Your task to perform on an android device: check data usage Image 0: 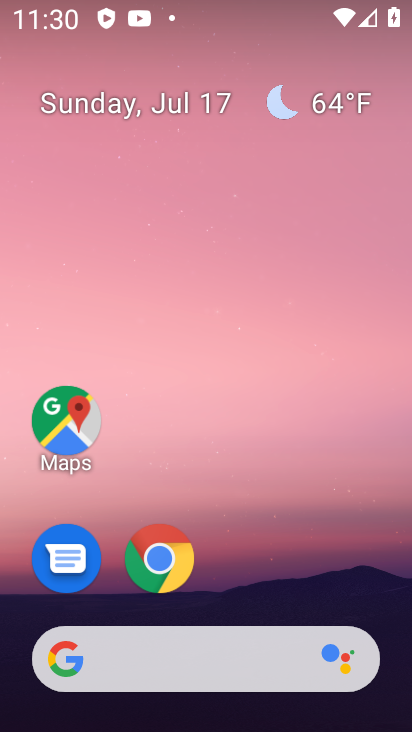
Step 0: drag from (369, 589) to (357, 151)
Your task to perform on an android device: check data usage Image 1: 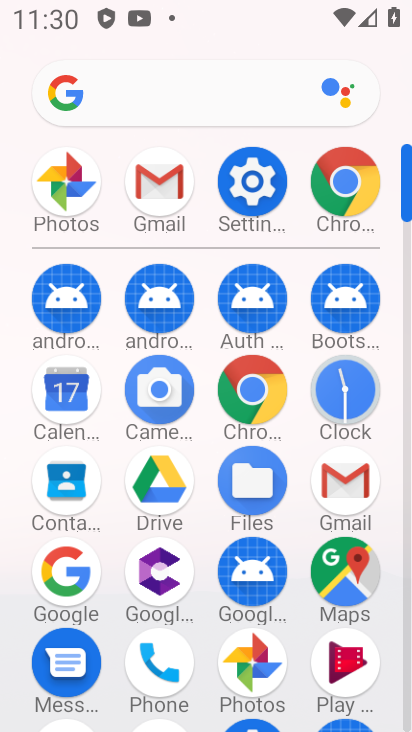
Step 1: click (248, 186)
Your task to perform on an android device: check data usage Image 2: 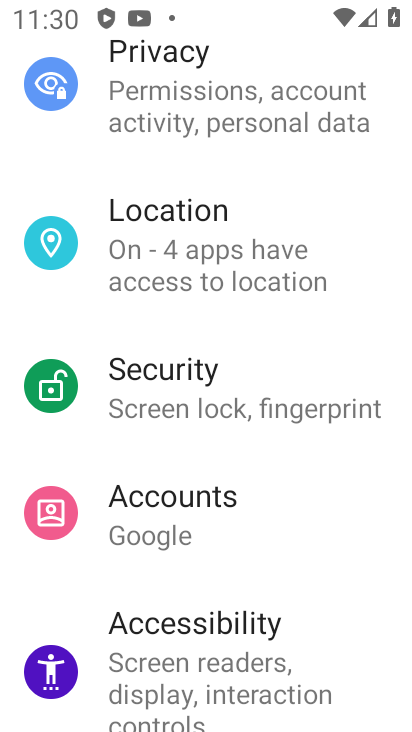
Step 2: drag from (367, 201) to (368, 307)
Your task to perform on an android device: check data usage Image 3: 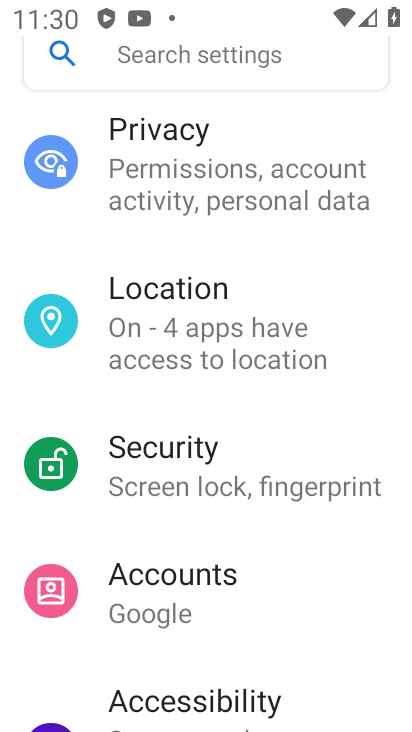
Step 3: drag from (368, 259) to (368, 344)
Your task to perform on an android device: check data usage Image 4: 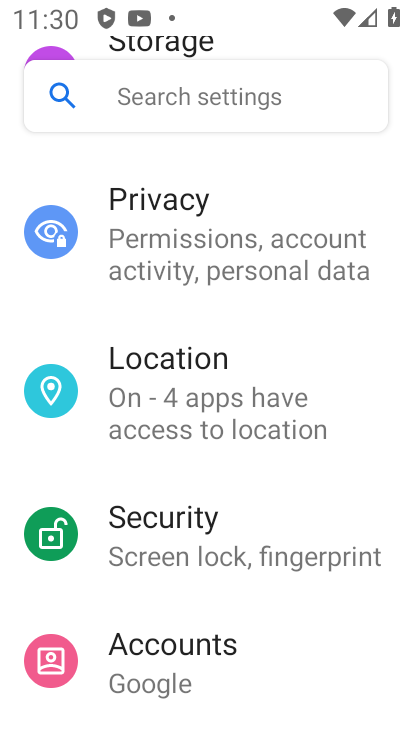
Step 4: drag from (369, 303) to (369, 419)
Your task to perform on an android device: check data usage Image 5: 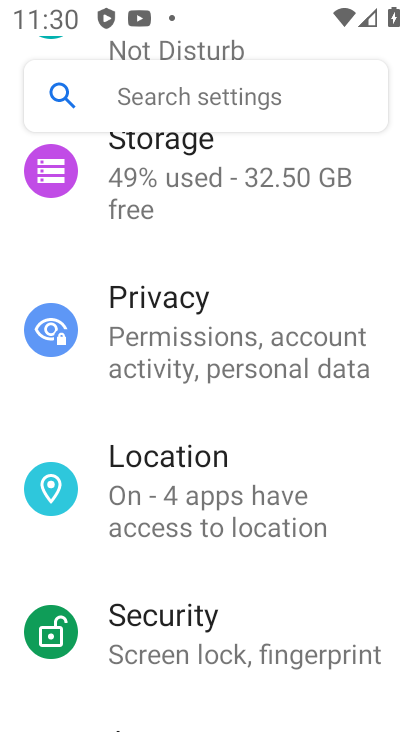
Step 5: drag from (369, 244) to (366, 375)
Your task to perform on an android device: check data usage Image 6: 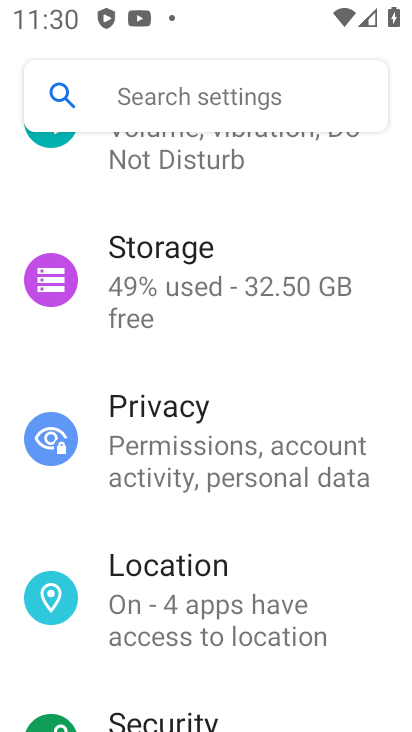
Step 6: drag from (365, 210) to (364, 324)
Your task to perform on an android device: check data usage Image 7: 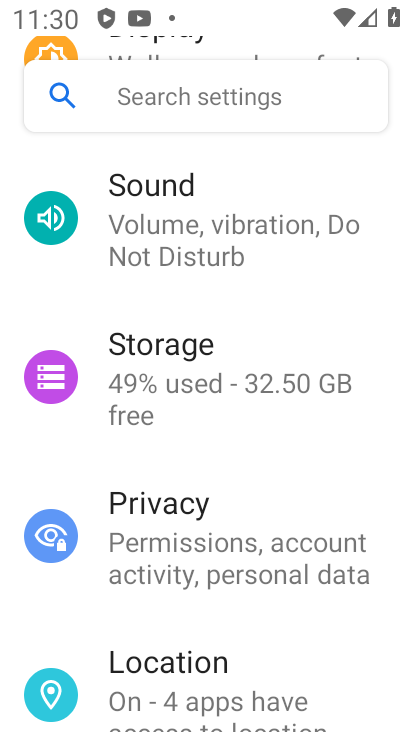
Step 7: drag from (364, 205) to (363, 330)
Your task to perform on an android device: check data usage Image 8: 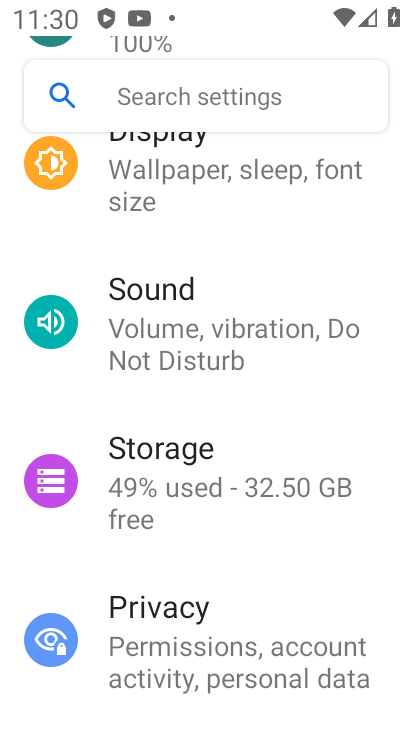
Step 8: drag from (364, 227) to (362, 356)
Your task to perform on an android device: check data usage Image 9: 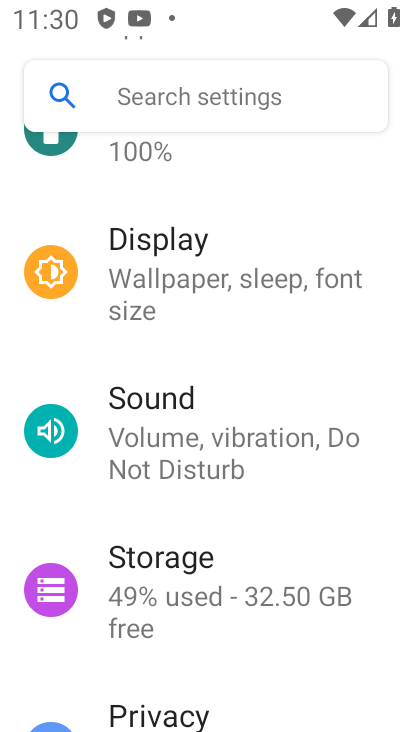
Step 9: drag from (369, 199) to (368, 330)
Your task to perform on an android device: check data usage Image 10: 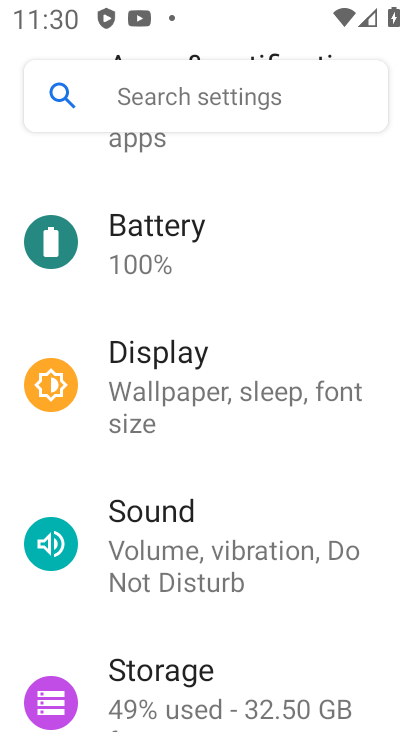
Step 10: drag from (374, 205) to (372, 324)
Your task to perform on an android device: check data usage Image 11: 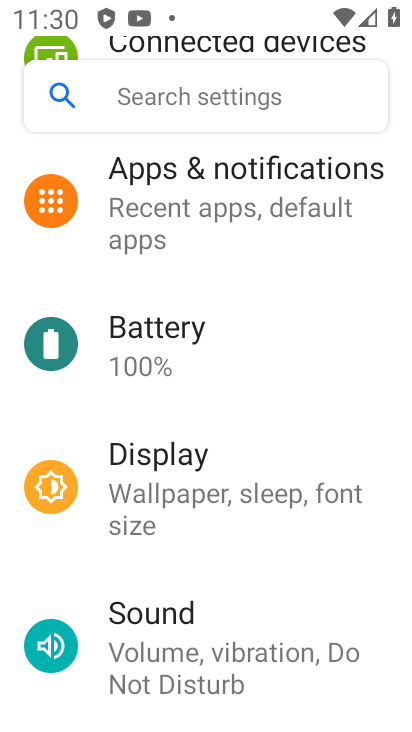
Step 11: drag from (369, 204) to (364, 430)
Your task to perform on an android device: check data usage Image 12: 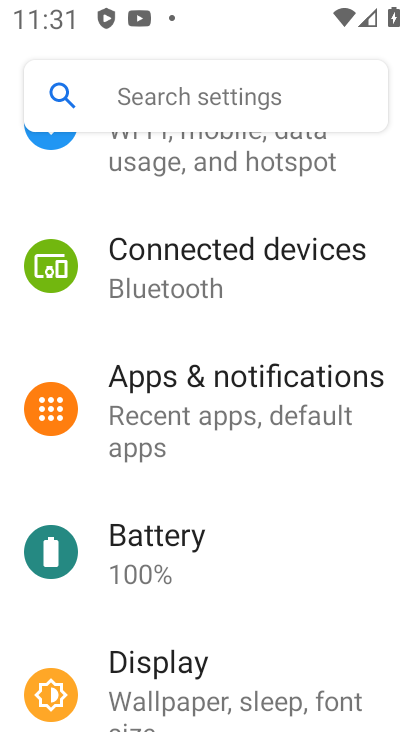
Step 12: drag from (353, 170) to (348, 386)
Your task to perform on an android device: check data usage Image 13: 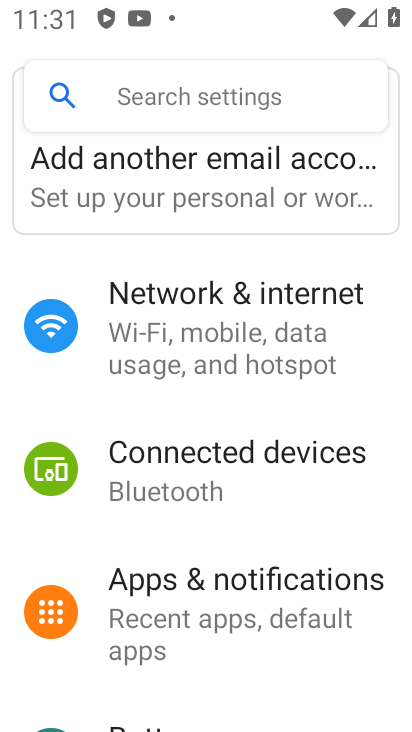
Step 13: click (276, 336)
Your task to perform on an android device: check data usage Image 14: 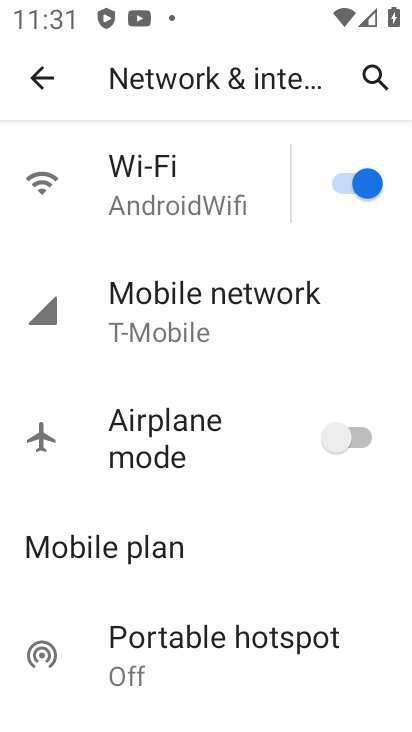
Step 14: click (196, 307)
Your task to perform on an android device: check data usage Image 15: 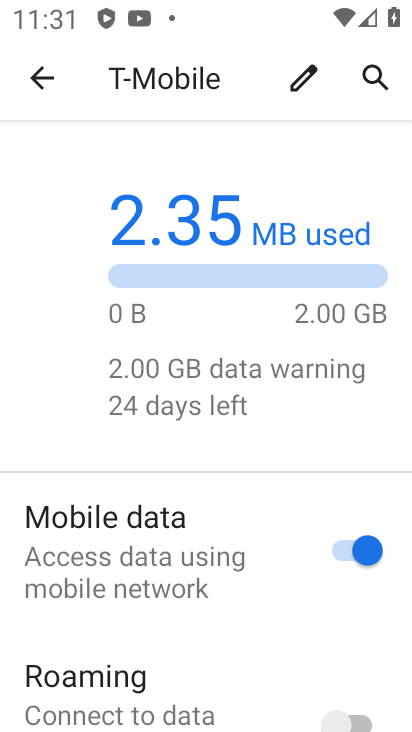
Step 15: drag from (266, 609) to (272, 414)
Your task to perform on an android device: check data usage Image 16: 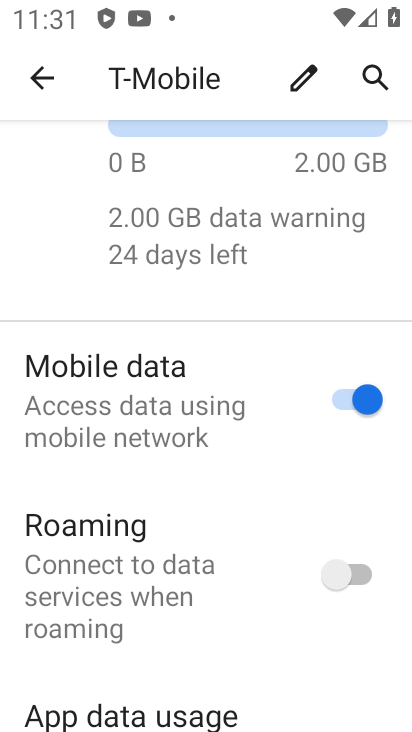
Step 16: drag from (264, 612) to (244, 360)
Your task to perform on an android device: check data usage Image 17: 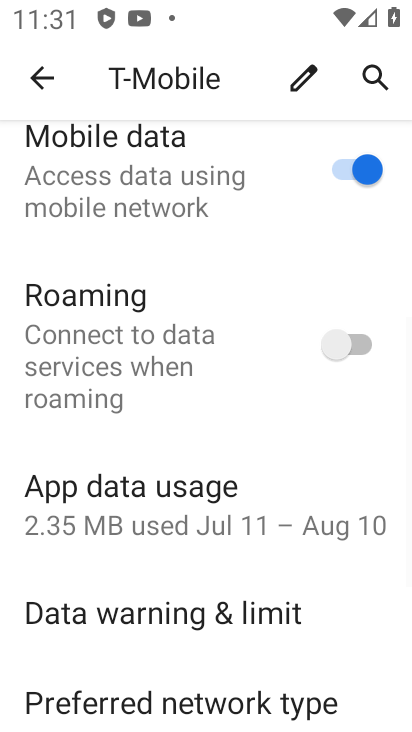
Step 17: click (240, 488)
Your task to perform on an android device: check data usage Image 18: 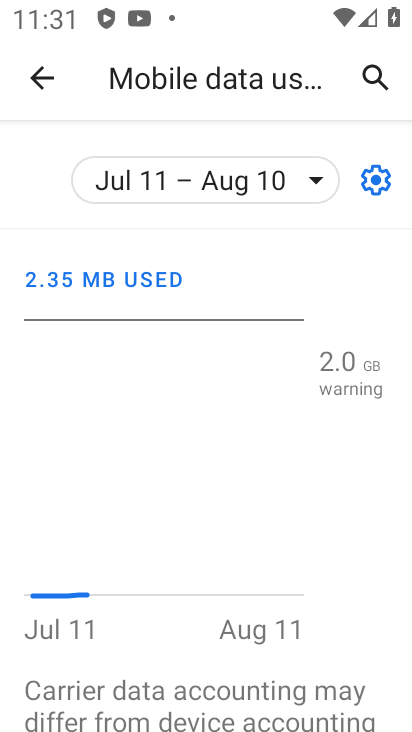
Step 18: task complete